Your task to perform on an android device: Open settings on Google Maps Image 0: 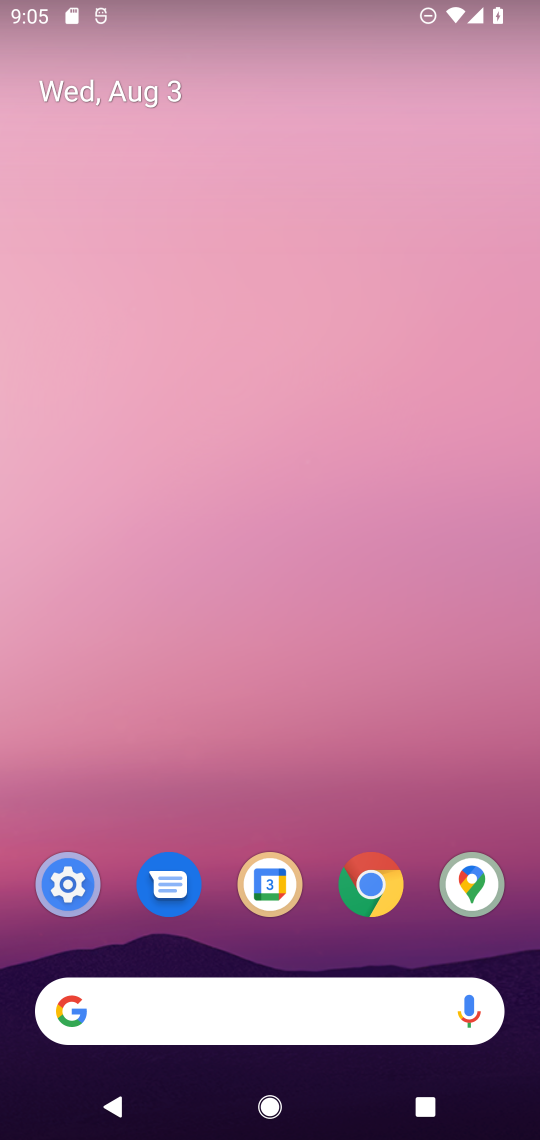
Step 0: click (512, 870)
Your task to perform on an android device: Open settings on Google Maps Image 1: 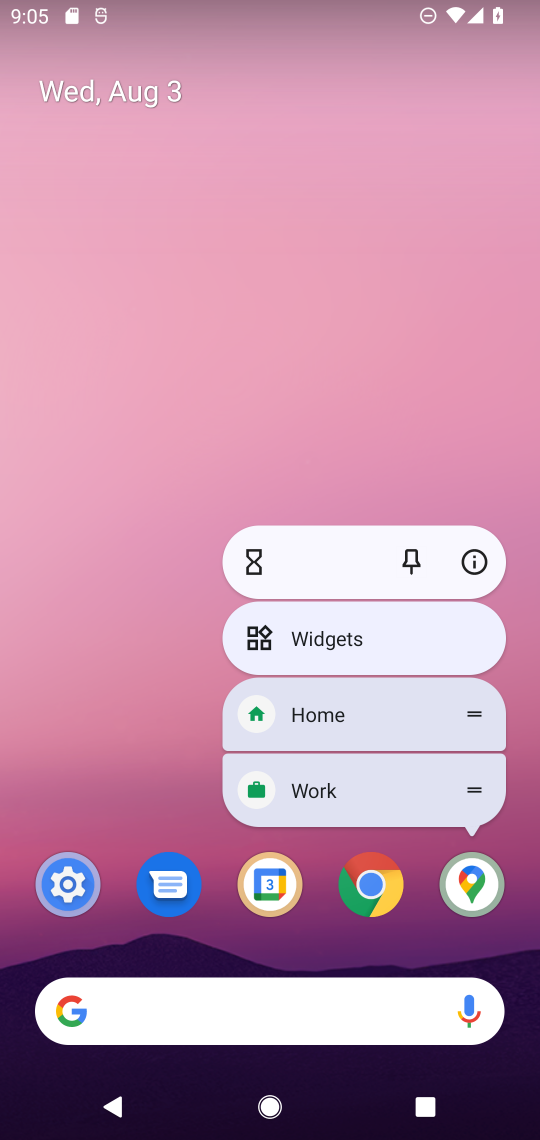
Step 1: click (452, 902)
Your task to perform on an android device: Open settings on Google Maps Image 2: 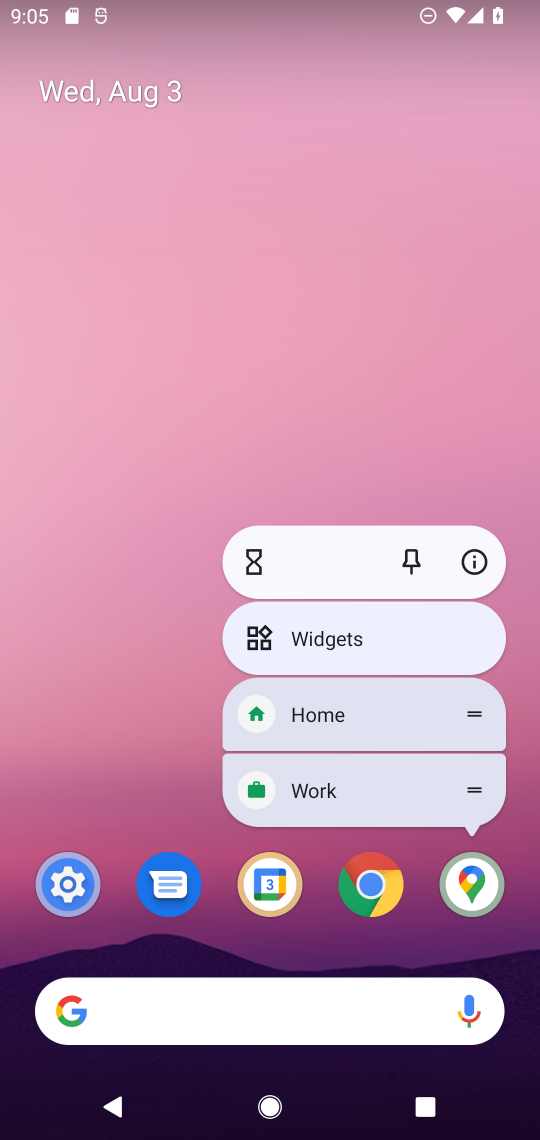
Step 2: click (488, 866)
Your task to perform on an android device: Open settings on Google Maps Image 3: 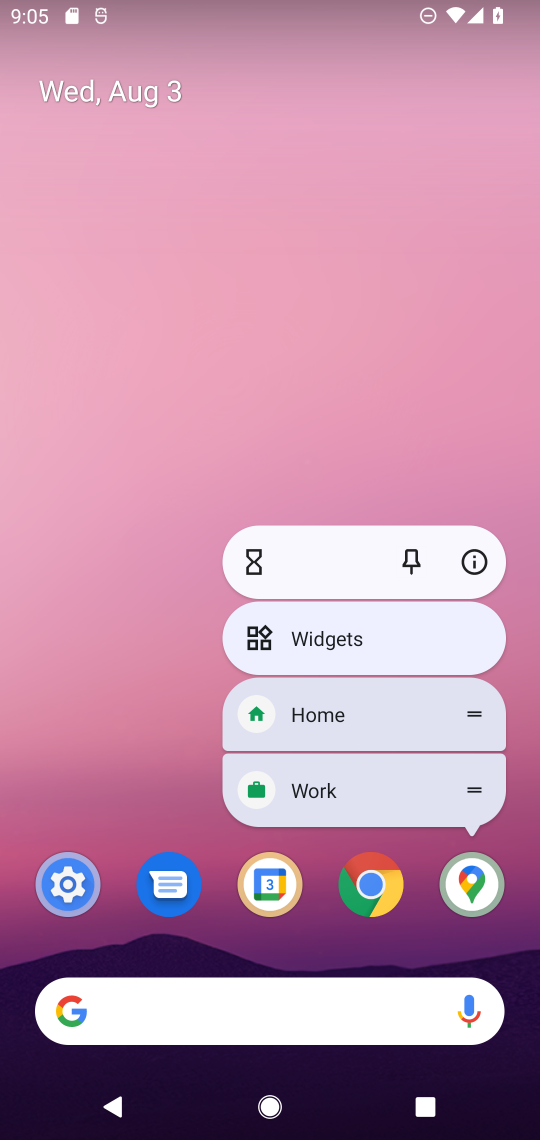
Step 3: task complete